Your task to perform on an android device: choose inbox layout in the gmail app Image 0: 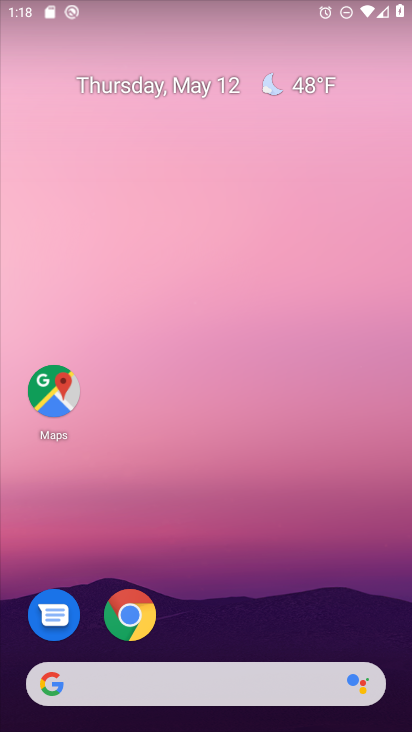
Step 0: click (333, 2)
Your task to perform on an android device: choose inbox layout in the gmail app Image 1: 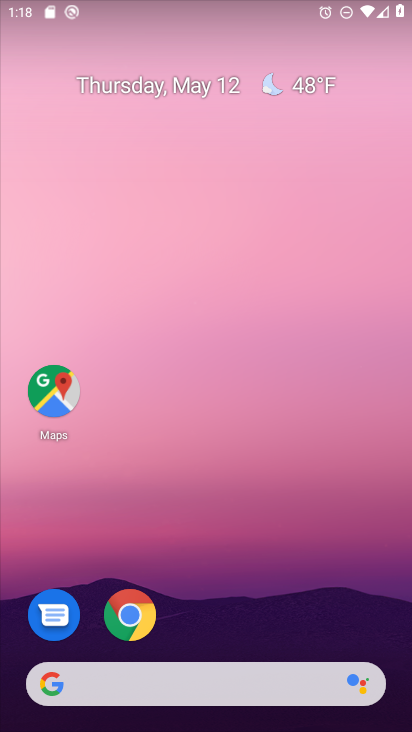
Step 1: drag from (337, 670) to (333, 41)
Your task to perform on an android device: choose inbox layout in the gmail app Image 2: 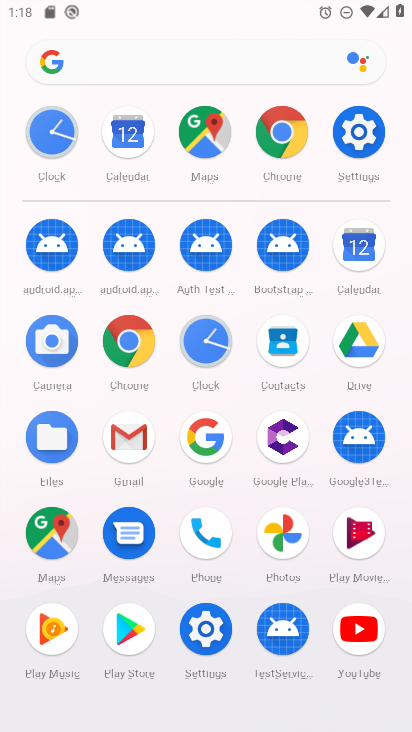
Step 2: click (133, 443)
Your task to perform on an android device: choose inbox layout in the gmail app Image 3: 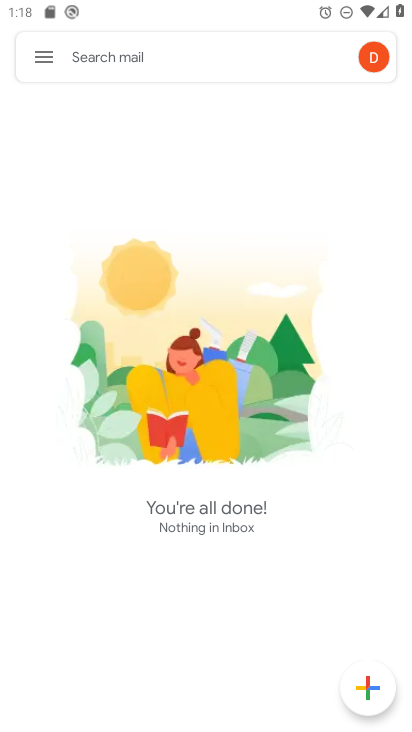
Step 3: click (45, 53)
Your task to perform on an android device: choose inbox layout in the gmail app Image 4: 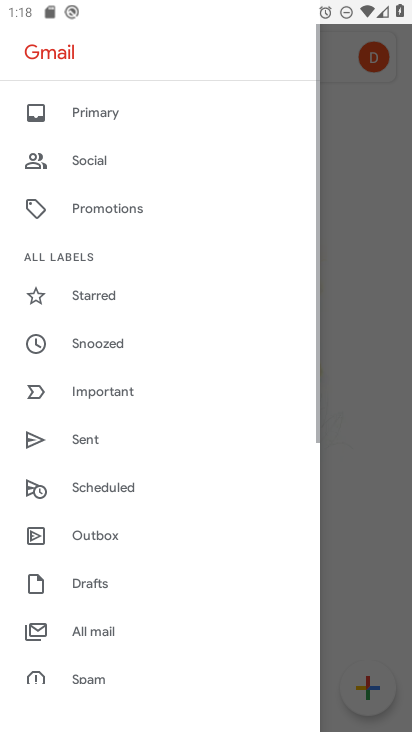
Step 4: drag from (223, 628) to (275, 48)
Your task to perform on an android device: choose inbox layout in the gmail app Image 5: 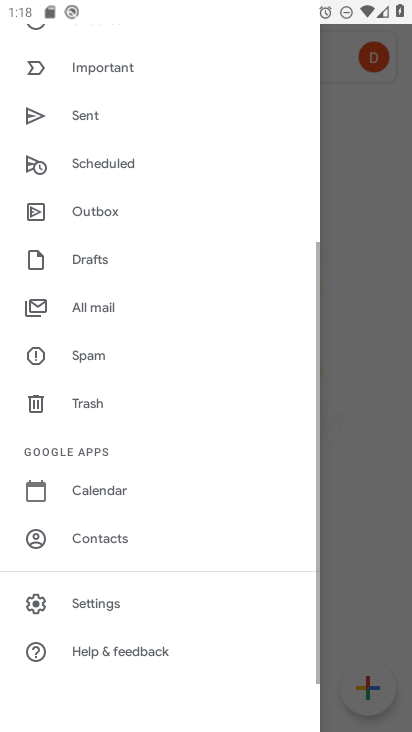
Step 5: click (114, 609)
Your task to perform on an android device: choose inbox layout in the gmail app Image 6: 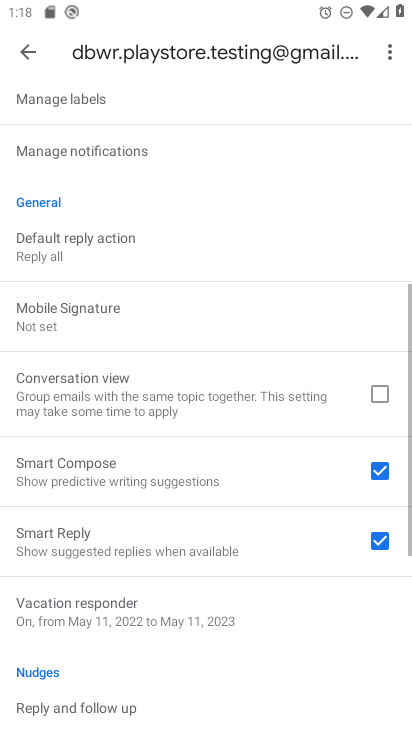
Step 6: drag from (125, 153) to (294, 713)
Your task to perform on an android device: choose inbox layout in the gmail app Image 7: 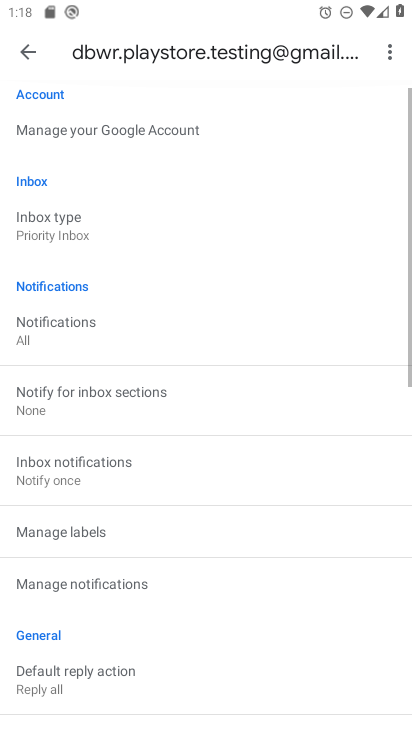
Step 7: drag from (237, 313) to (301, 710)
Your task to perform on an android device: choose inbox layout in the gmail app Image 8: 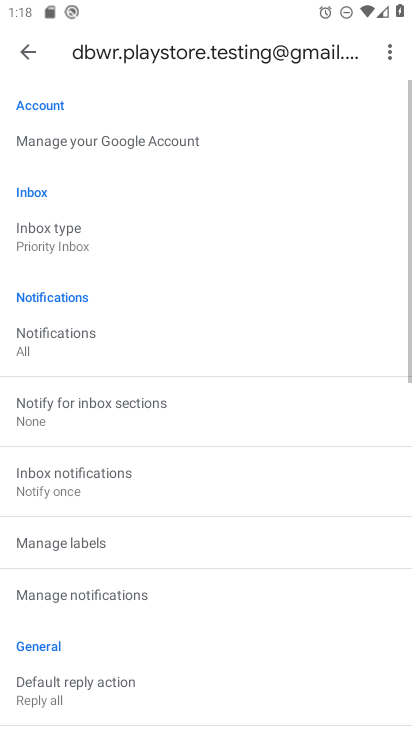
Step 8: click (69, 235)
Your task to perform on an android device: choose inbox layout in the gmail app Image 9: 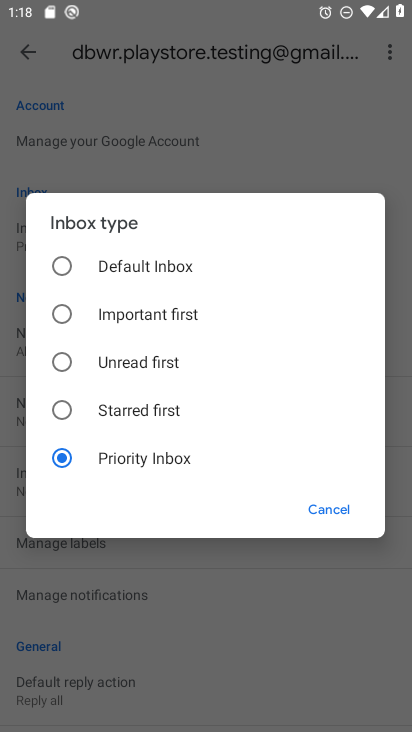
Step 9: click (67, 360)
Your task to perform on an android device: choose inbox layout in the gmail app Image 10: 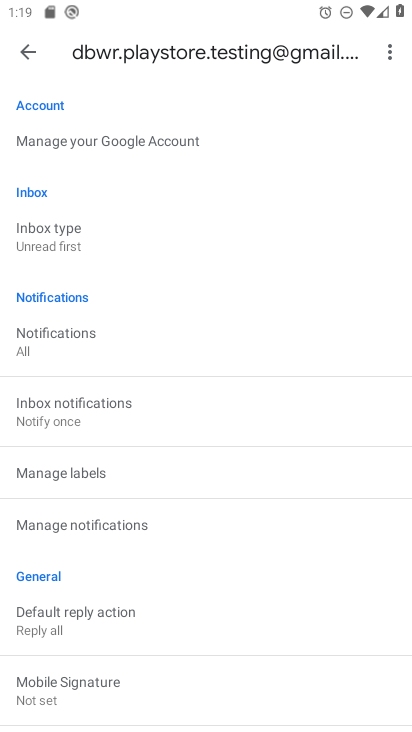
Step 10: task complete